Your task to perform on an android device: Go to notification settings Image 0: 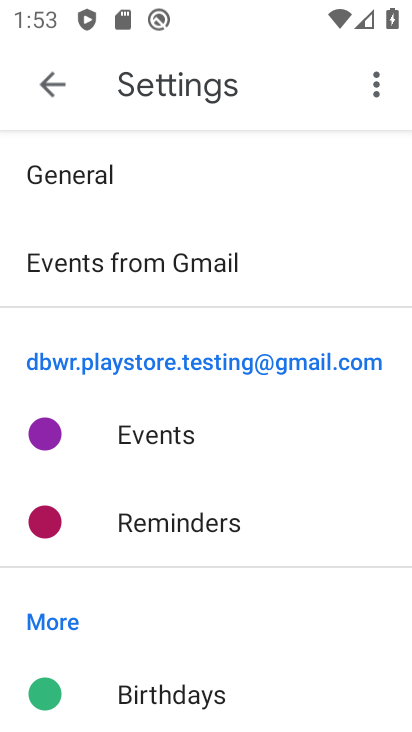
Step 0: press home button
Your task to perform on an android device: Go to notification settings Image 1: 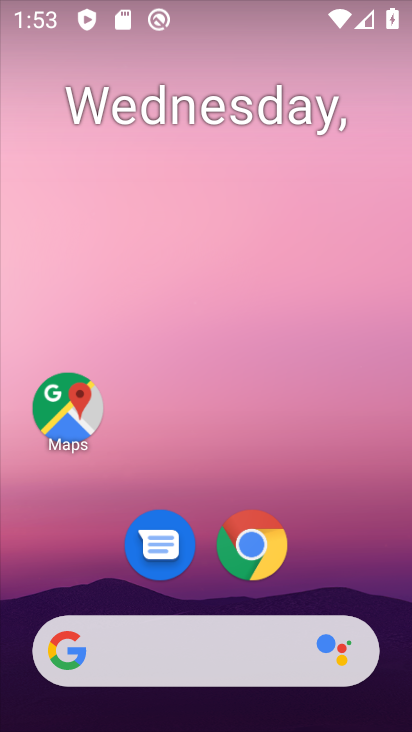
Step 1: drag from (327, 533) to (284, 17)
Your task to perform on an android device: Go to notification settings Image 2: 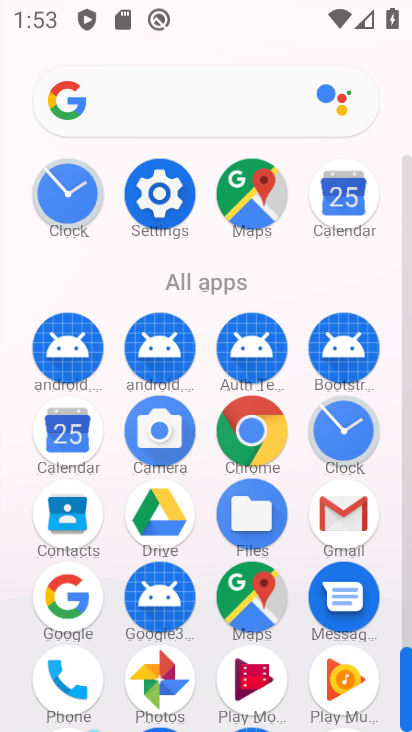
Step 2: click (152, 215)
Your task to perform on an android device: Go to notification settings Image 3: 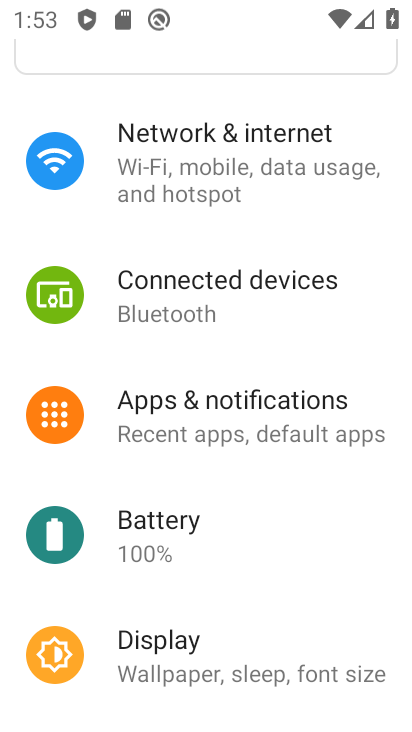
Step 3: click (258, 423)
Your task to perform on an android device: Go to notification settings Image 4: 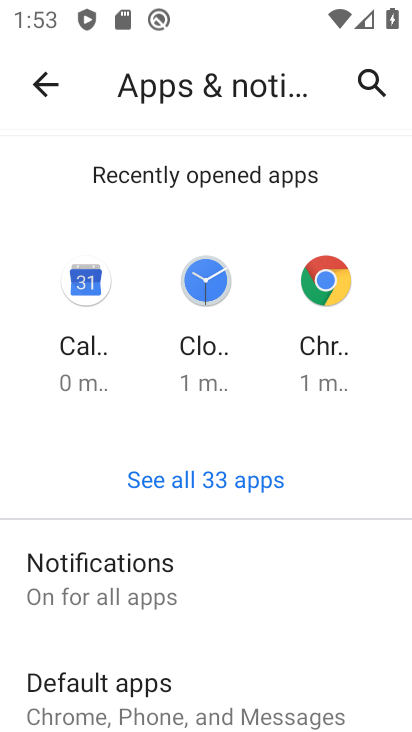
Step 4: task complete